Your task to perform on an android device: What's the latest video from GameSpot? Image 0: 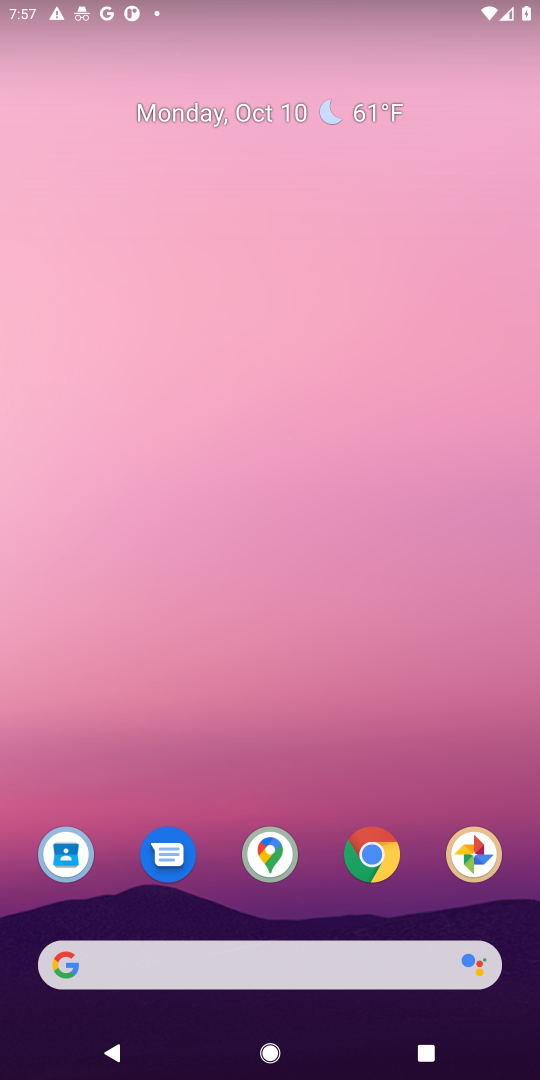
Step 0: drag from (246, 952) to (412, 267)
Your task to perform on an android device: What's the latest video from GameSpot? Image 1: 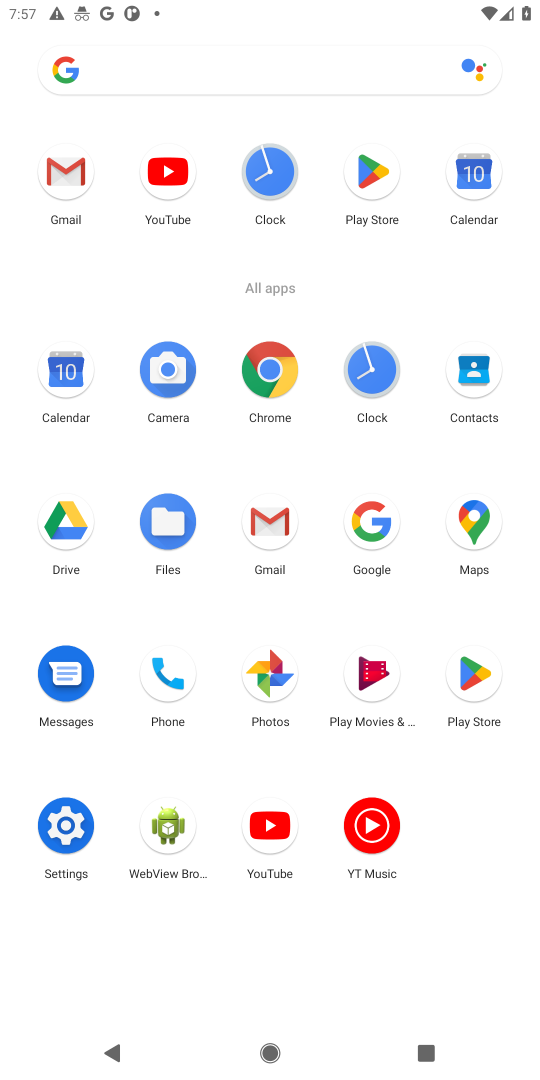
Step 1: click (159, 172)
Your task to perform on an android device: What's the latest video from GameSpot? Image 2: 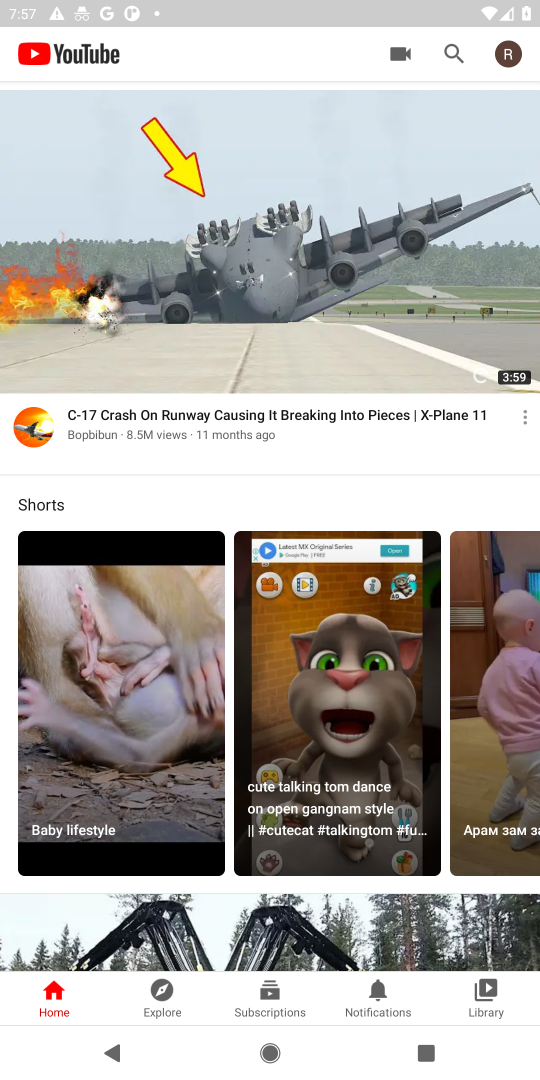
Step 2: click (450, 46)
Your task to perform on an android device: What's the latest video from GameSpot? Image 3: 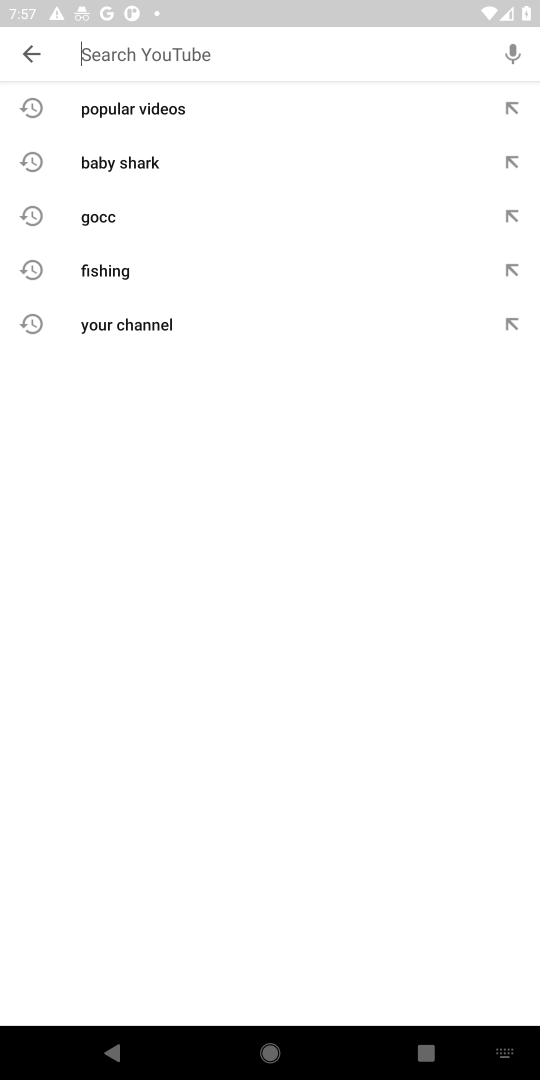
Step 3: type " latest video from GameSpot"
Your task to perform on an android device: What's the latest video from GameSpot? Image 4: 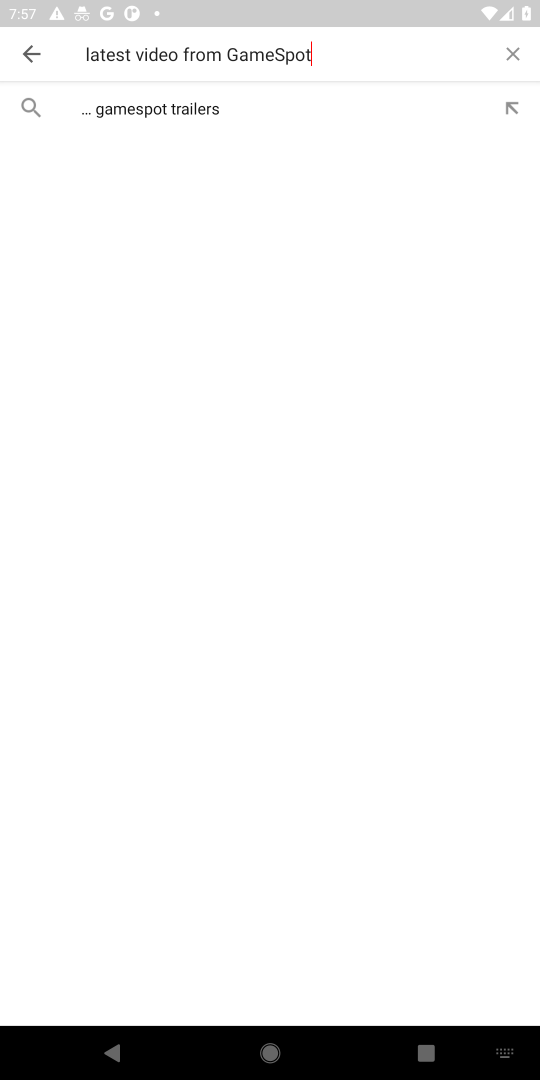
Step 4: click (203, 106)
Your task to perform on an android device: What's the latest video from GameSpot? Image 5: 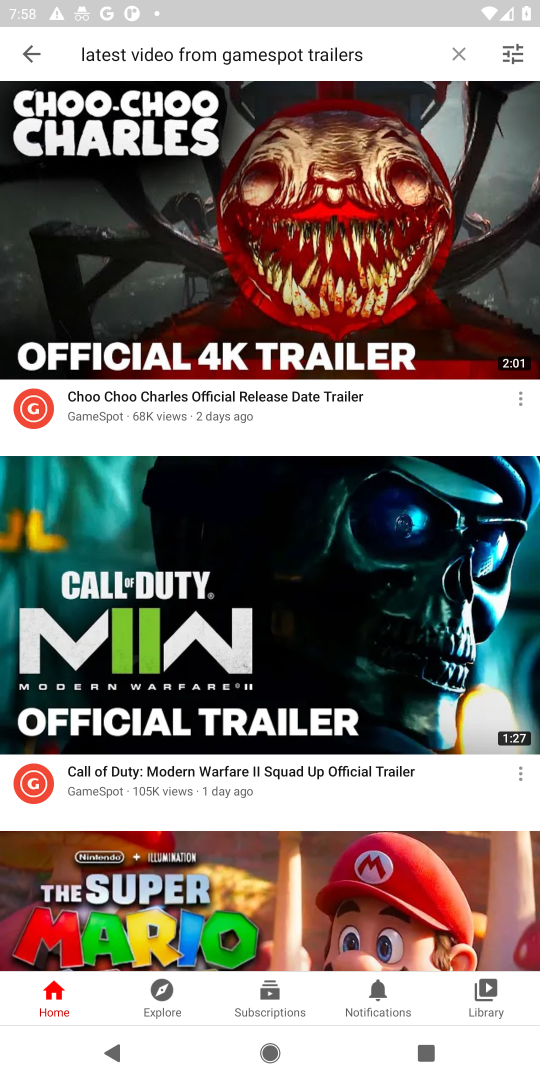
Step 5: click (300, 269)
Your task to perform on an android device: What's the latest video from GameSpot? Image 6: 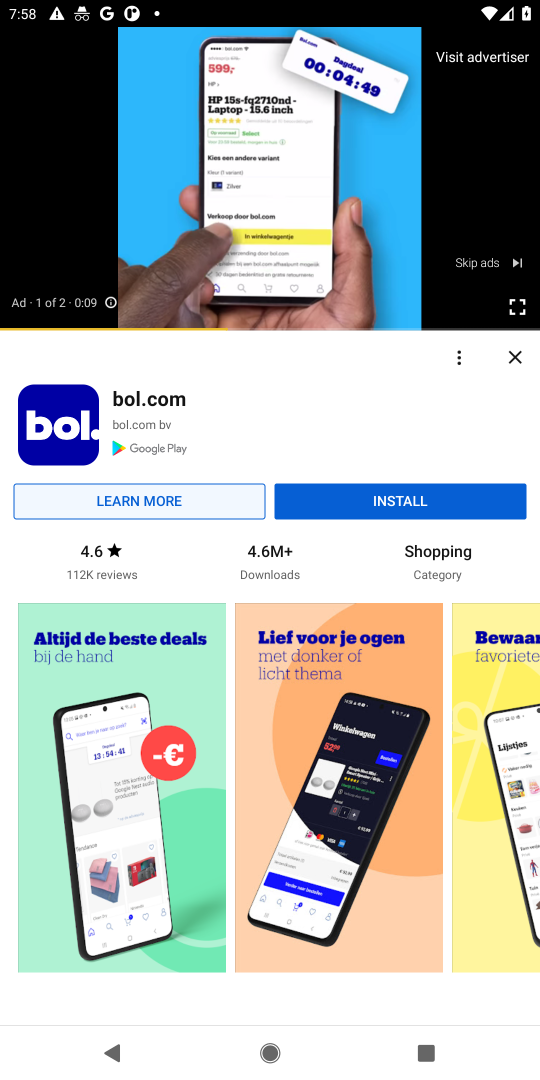
Step 6: click (478, 270)
Your task to perform on an android device: What's the latest video from GameSpot? Image 7: 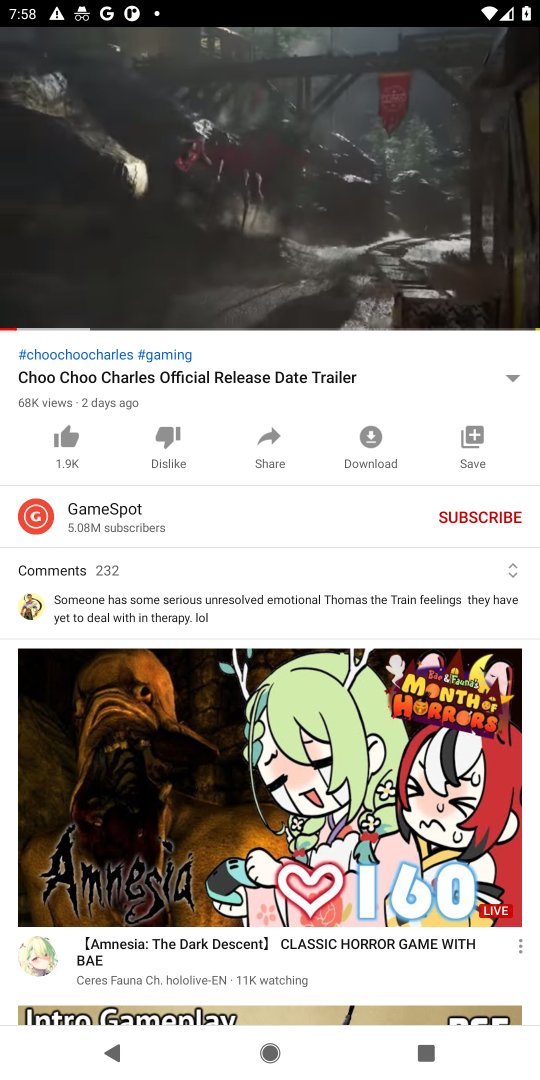
Step 7: click (287, 161)
Your task to perform on an android device: What's the latest video from GameSpot? Image 8: 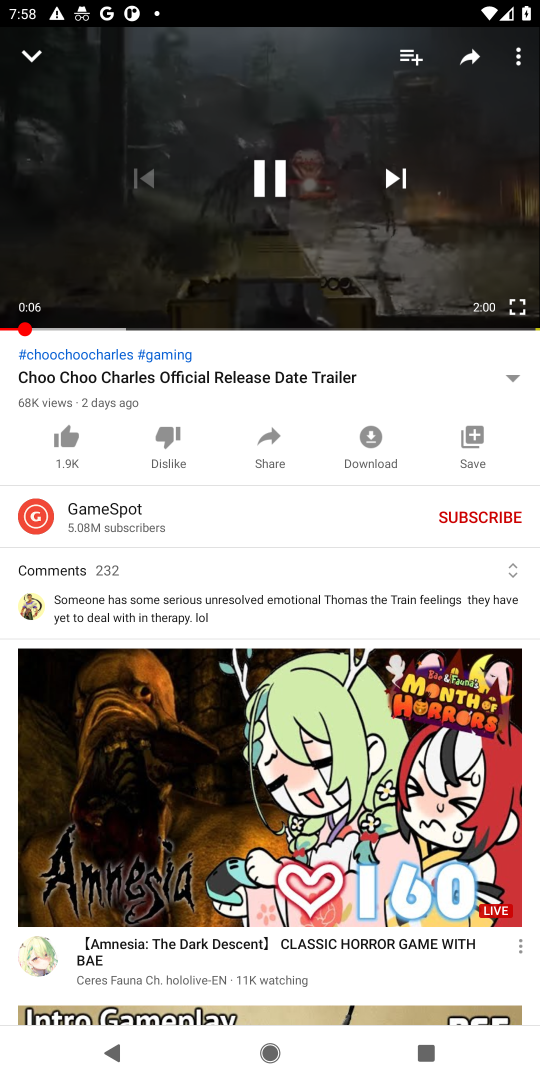
Step 8: click (277, 180)
Your task to perform on an android device: What's the latest video from GameSpot? Image 9: 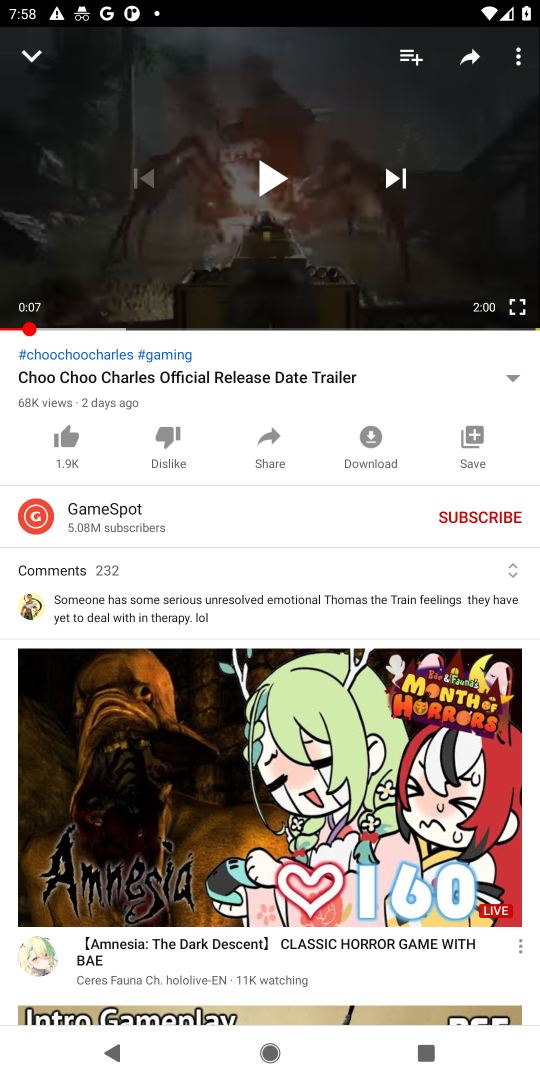
Step 9: task complete